Your task to perform on an android device: make emails show in primary in the gmail app Image 0: 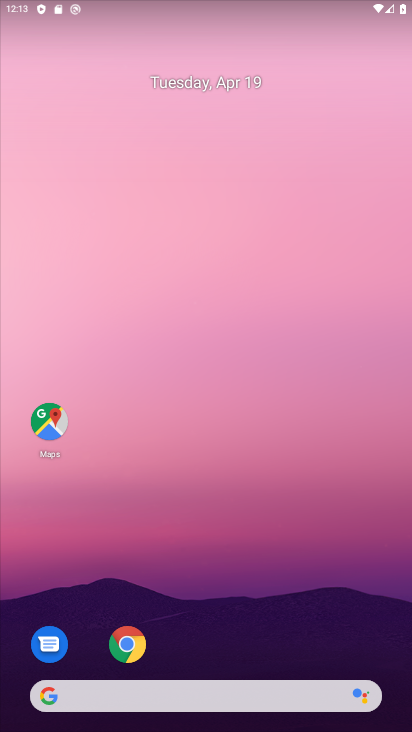
Step 0: drag from (229, 603) to (297, 20)
Your task to perform on an android device: make emails show in primary in the gmail app Image 1: 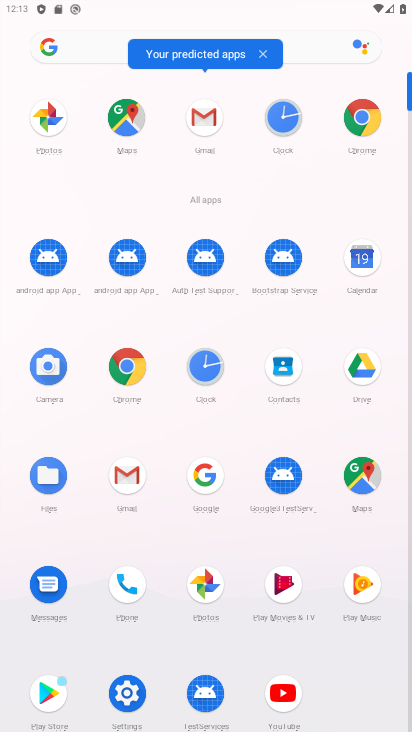
Step 1: click (210, 146)
Your task to perform on an android device: make emails show in primary in the gmail app Image 2: 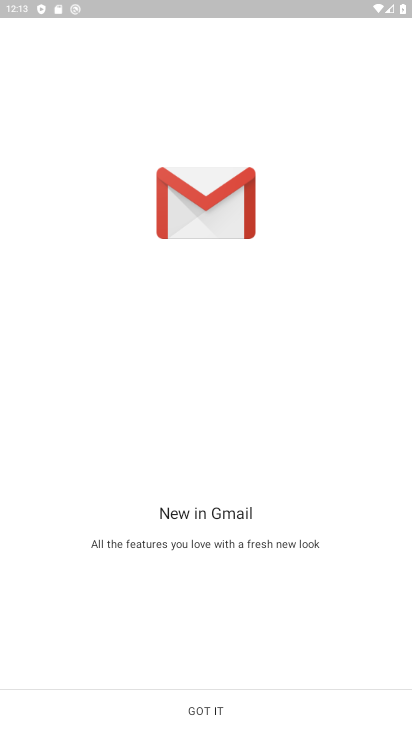
Step 2: click (211, 719)
Your task to perform on an android device: make emails show in primary in the gmail app Image 3: 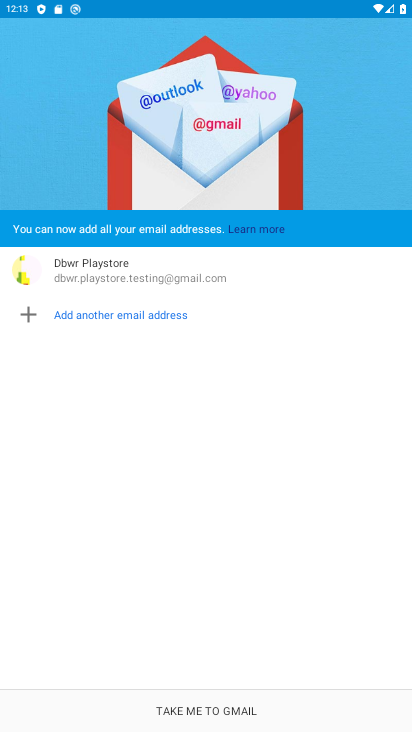
Step 3: click (158, 713)
Your task to perform on an android device: make emails show in primary in the gmail app Image 4: 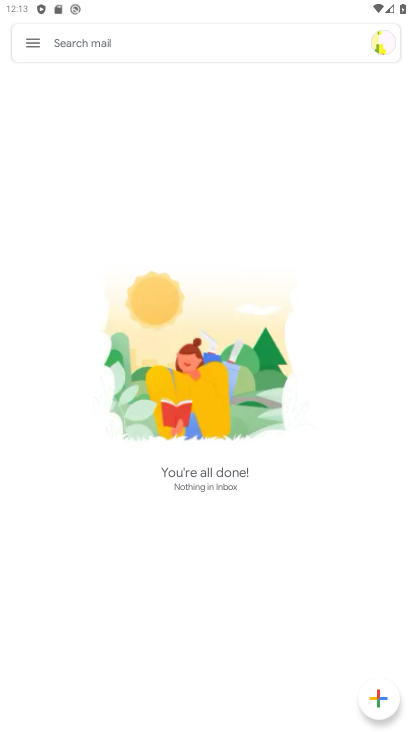
Step 4: click (40, 53)
Your task to perform on an android device: make emails show in primary in the gmail app Image 5: 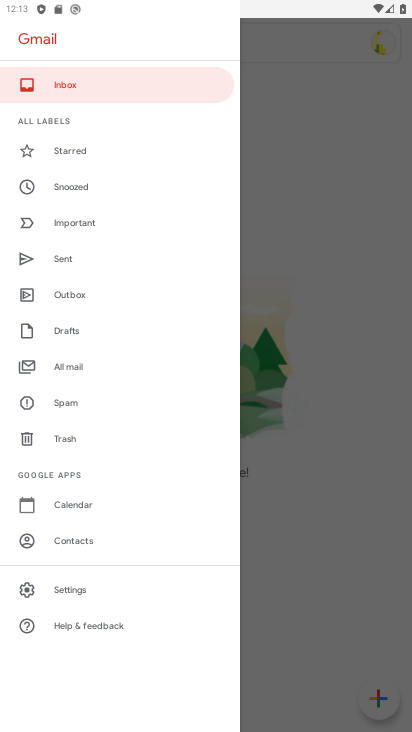
Step 5: click (77, 575)
Your task to perform on an android device: make emails show in primary in the gmail app Image 6: 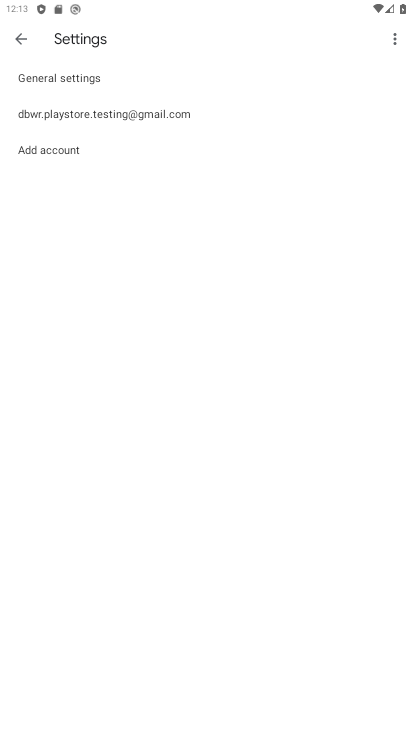
Step 6: click (82, 100)
Your task to perform on an android device: make emails show in primary in the gmail app Image 7: 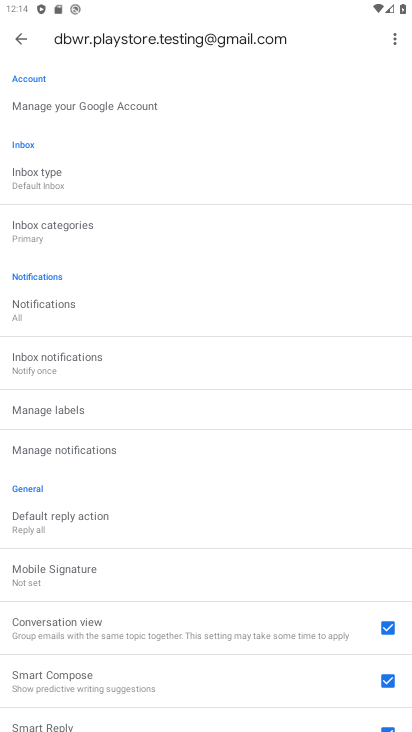
Step 7: task complete